Your task to perform on an android device: set the stopwatch Image 0: 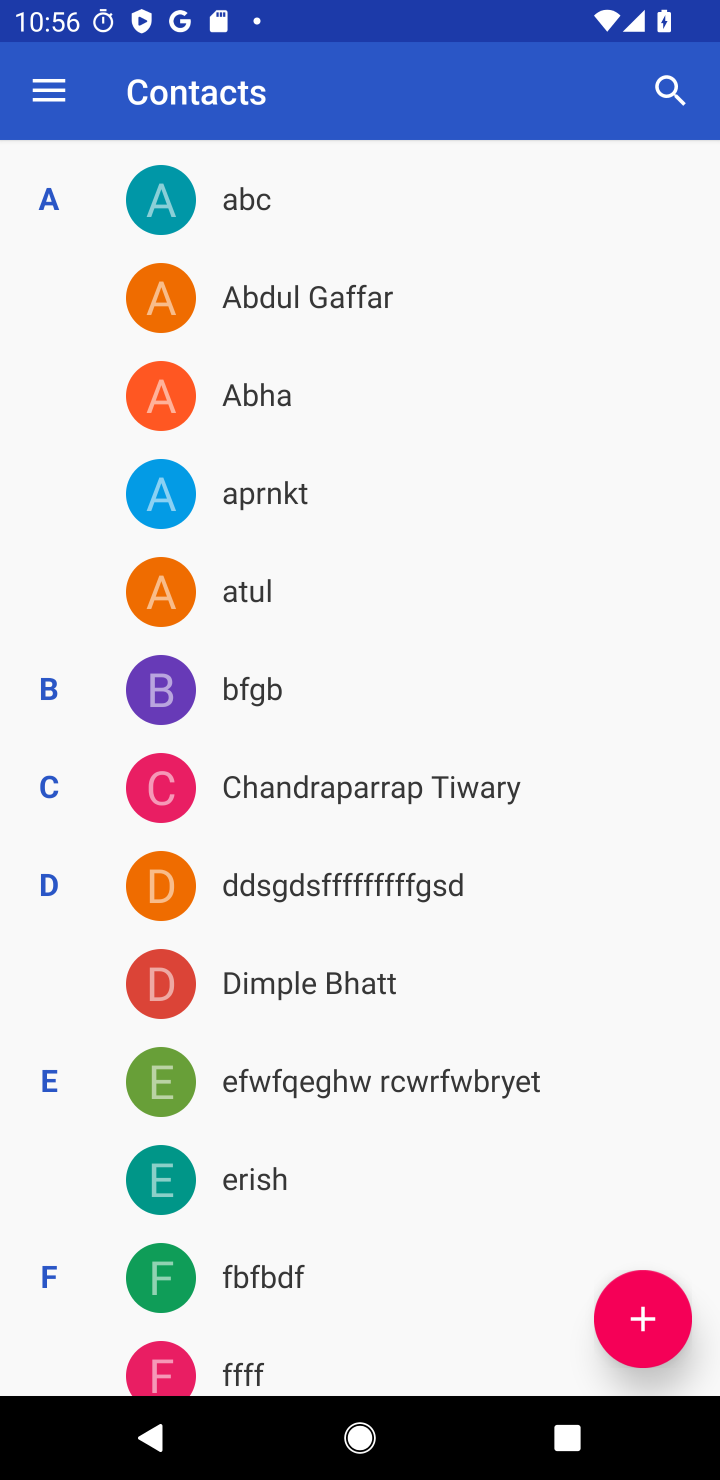
Step 0: press home button
Your task to perform on an android device: set the stopwatch Image 1: 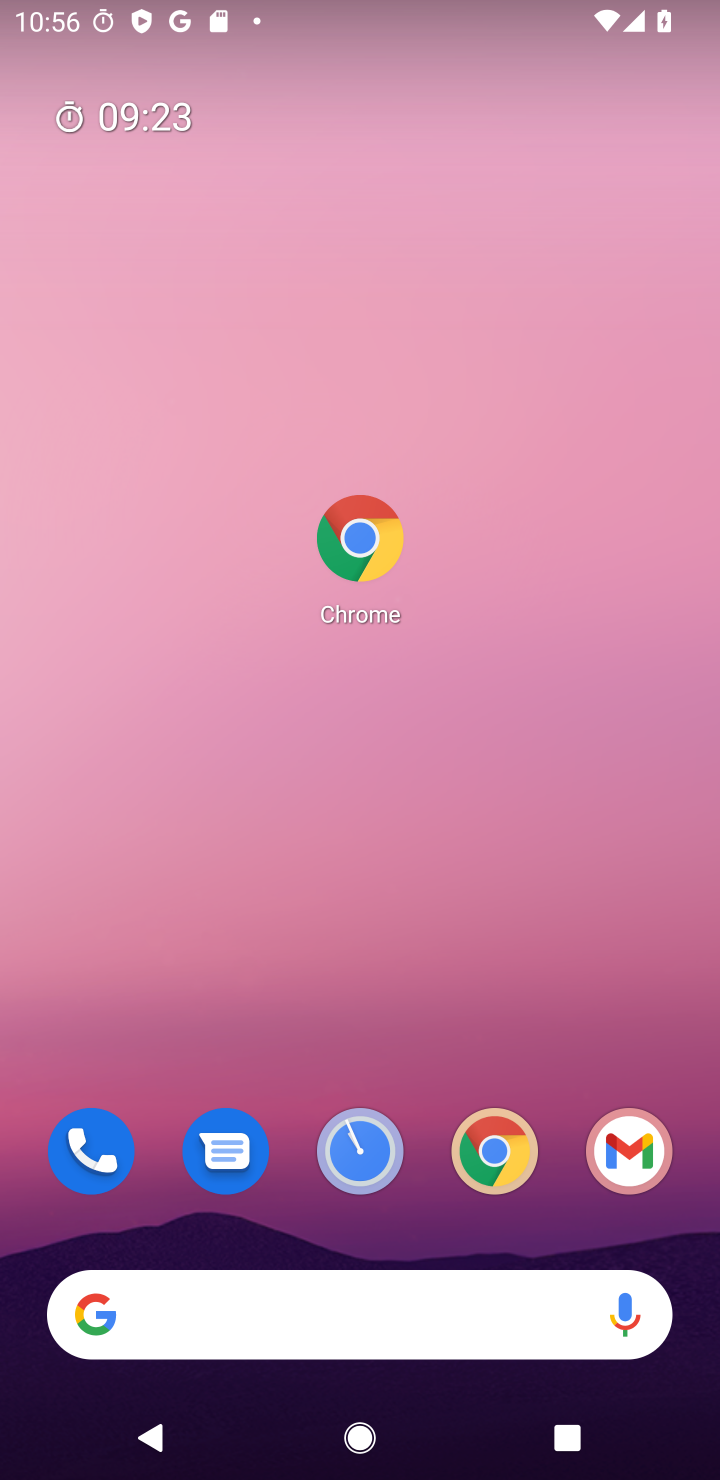
Step 1: drag from (567, 1075) to (376, 211)
Your task to perform on an android device: set the stopwatch Image 2: 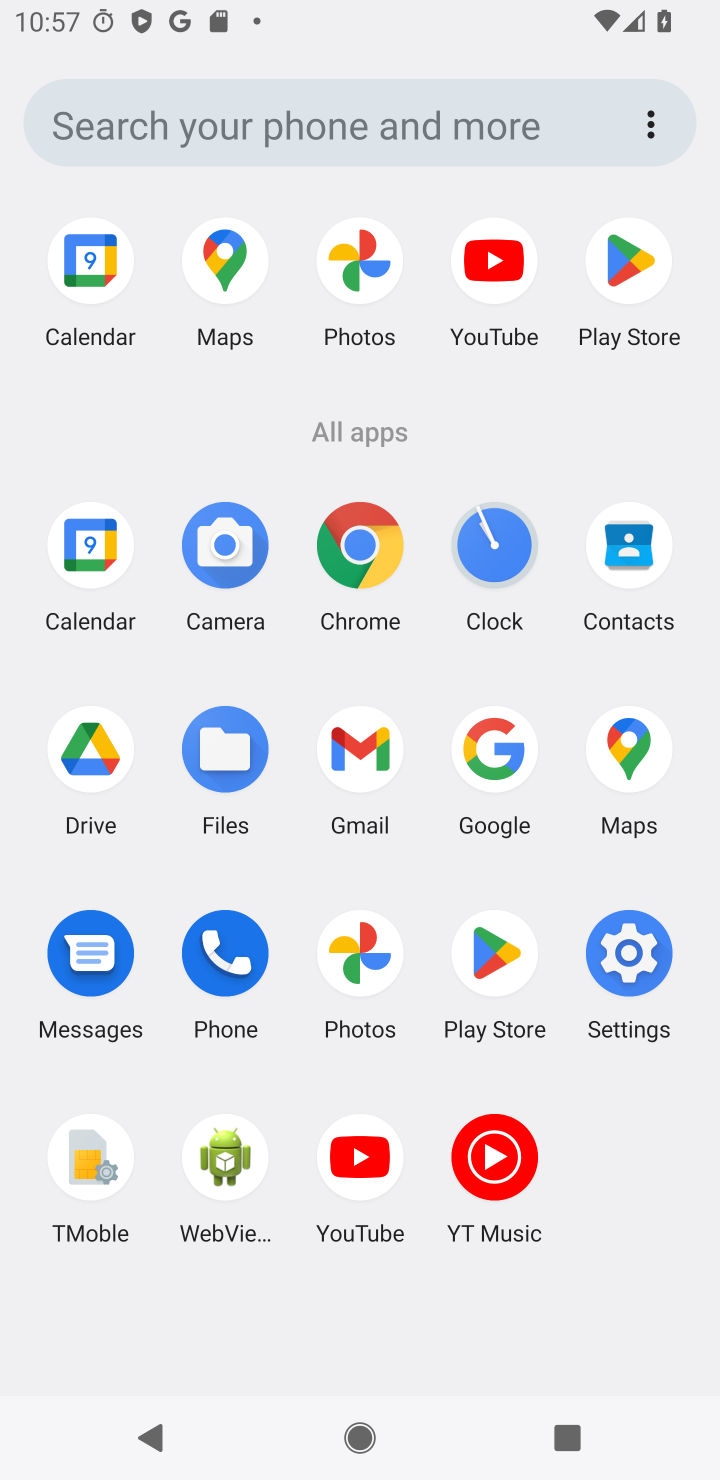
Step 2: click (463, 534)
Your task to perform on an android device: set the stopwatch Image 3: 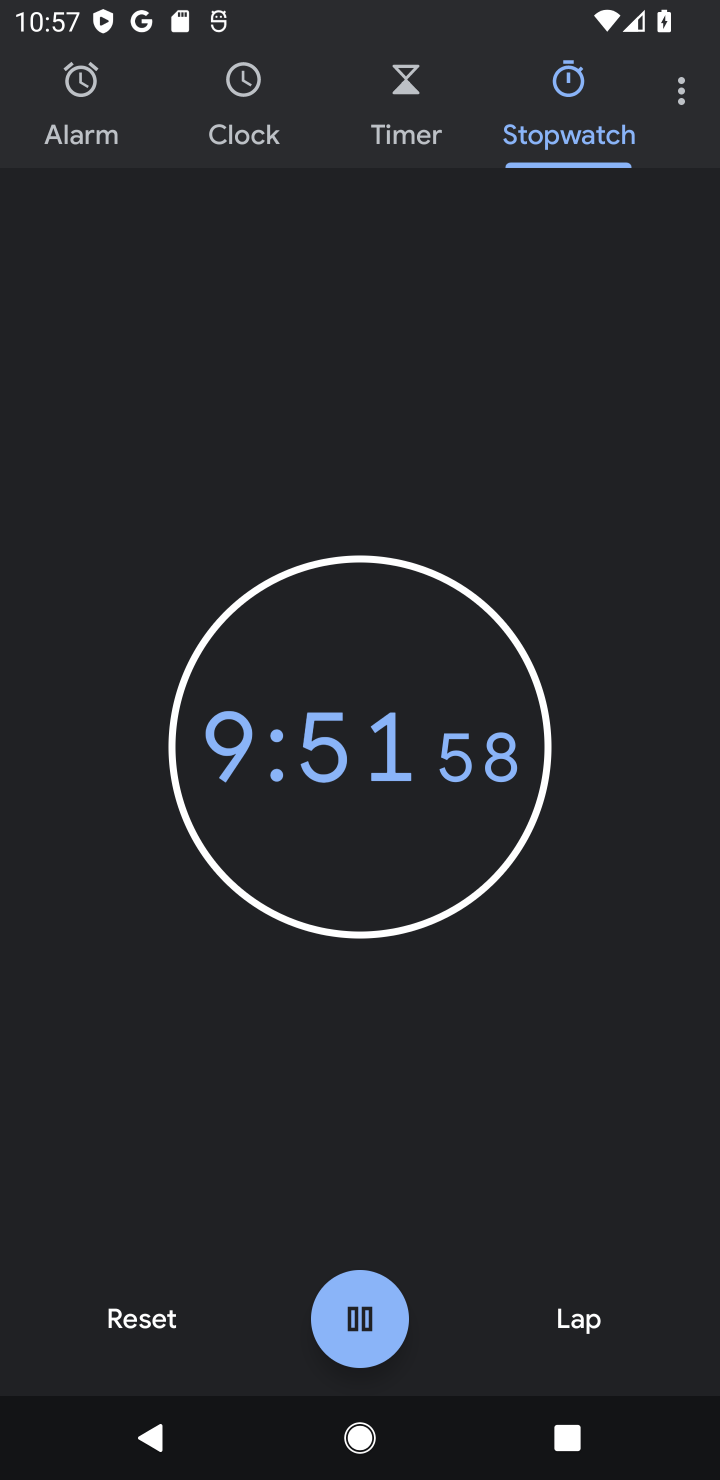
Step 3: task complete